Your task to perform on an android device: delete a single message in the gmail app Image 0: 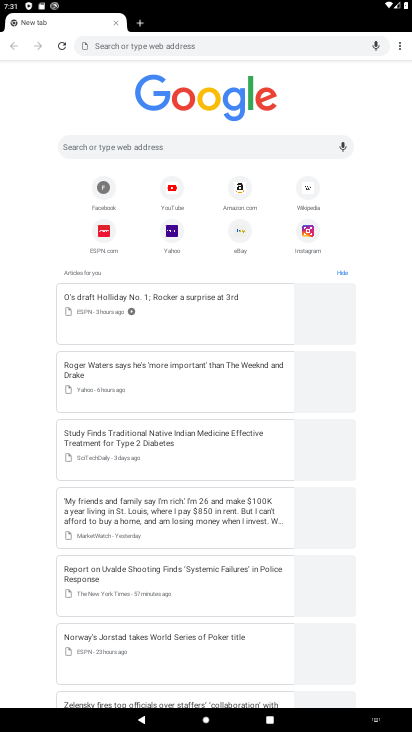
Step 0: click (314, 69)
Your task to perform on an android device: delete a single message in the gmail app Image 1: 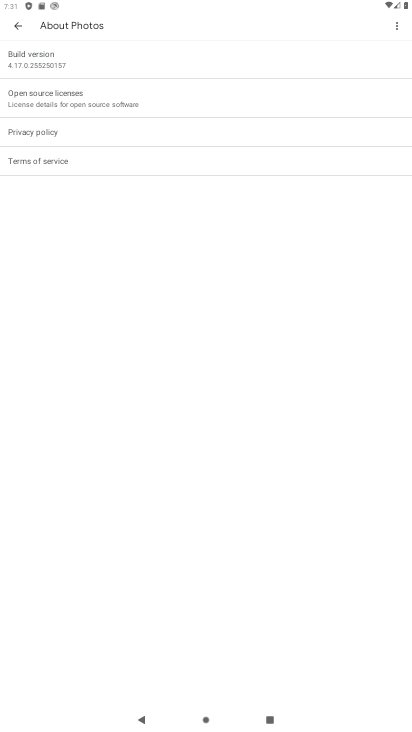
Step 1: press home button
Your task to perform on an android device: delete a single message in the gmail app Image 2: 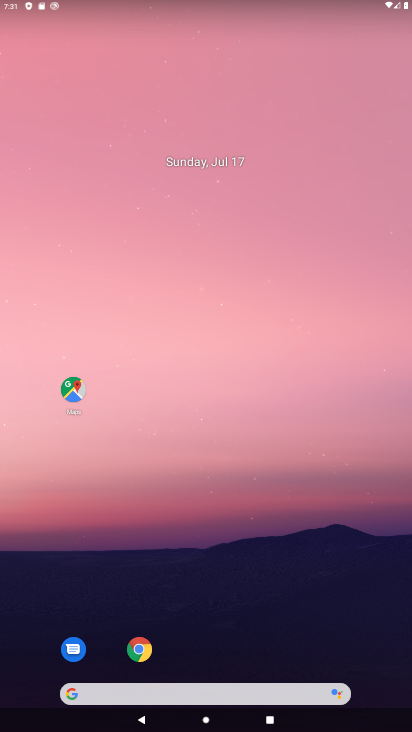
Step 2: drag from (152, 478) to (151, 88)
Your task to perform on an android device: delete a single message in the gmail app Image 3: 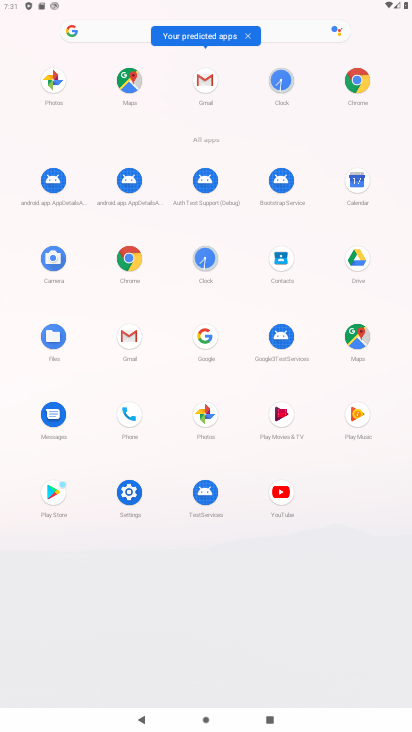
Step 3: click (133, 349)
Your task to perform on an android device: delete a single message in the gmail app Image 4: 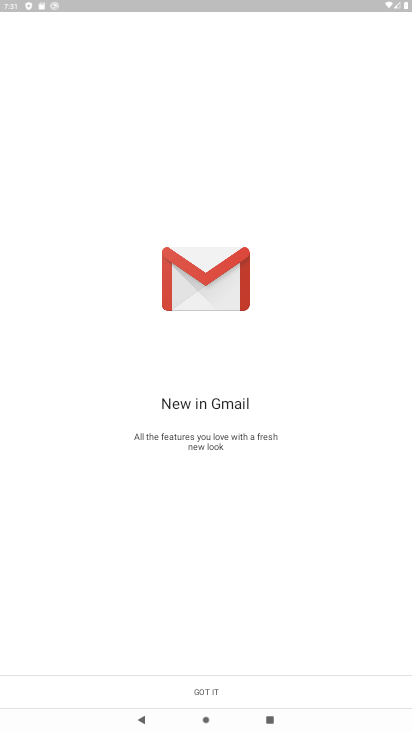
Step 4: click (210, 693)
Your task to perform on an android device: delete a single message in the gmail app Image 5: 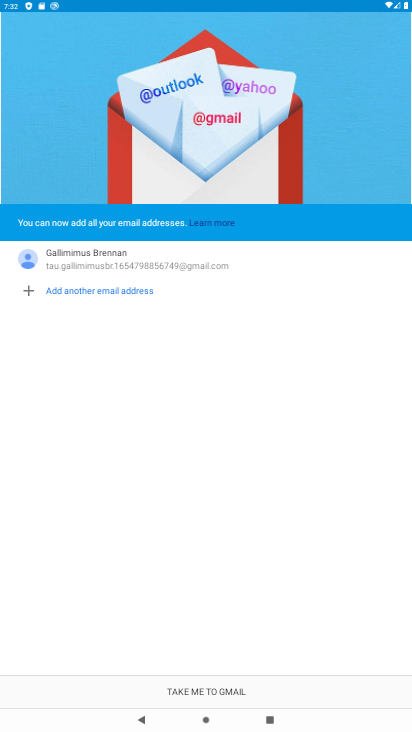
Step 5: click (211, 694)
Your task to perform on an android device: delete a single message in the gmail app Image 6: 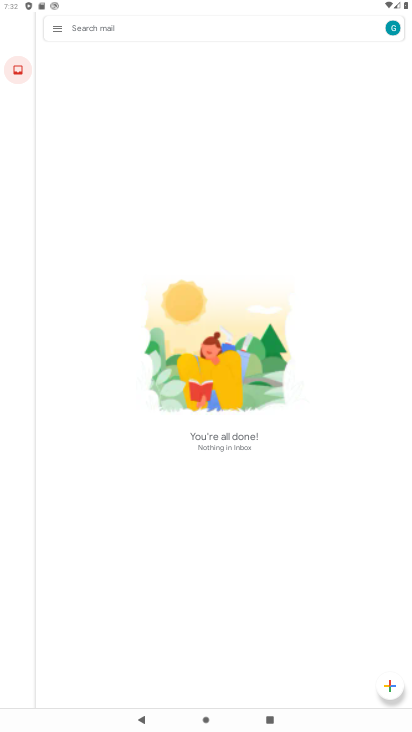
Step 6: task complete